Your task to perform on an android device: Search for "razer blade" on target, select the first entry, and add it to the cart. Image 0: 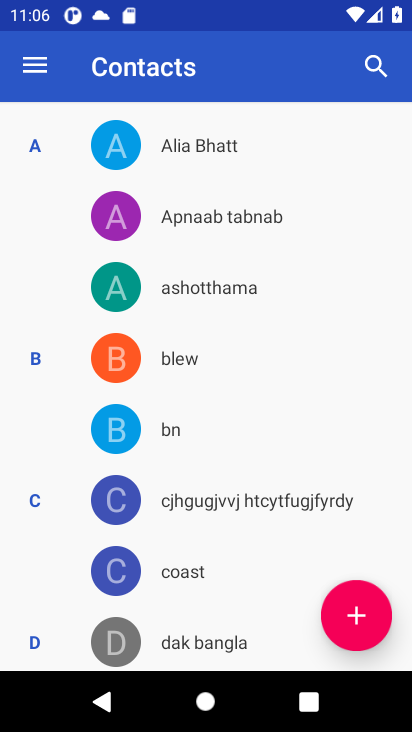
Step 0: press home button
Your task to perform on an android device: Search for "razer blade" on target, select the first entry, and add it to the cart. Image 1: 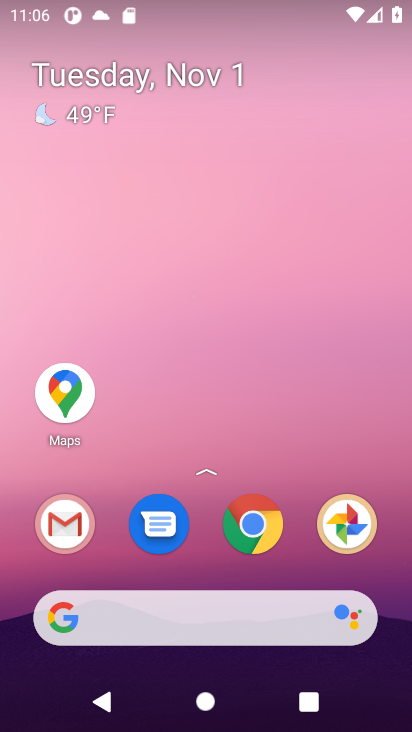
Step 1: click (124, 625)
Your task to perform on an android device: Search for "razer blade" on target, select the first entry, and add it to the cart. Image 2: 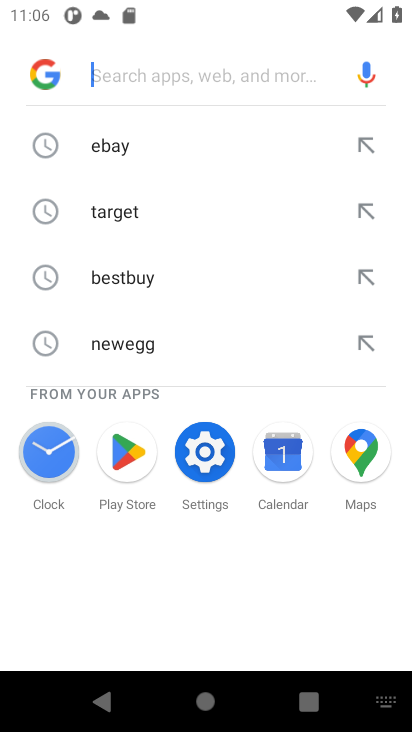
Step 2: type "target"
Your task to perform on an android device: Search for "razer blade" on target, select the first entry, and add it to the cart. Image 3: 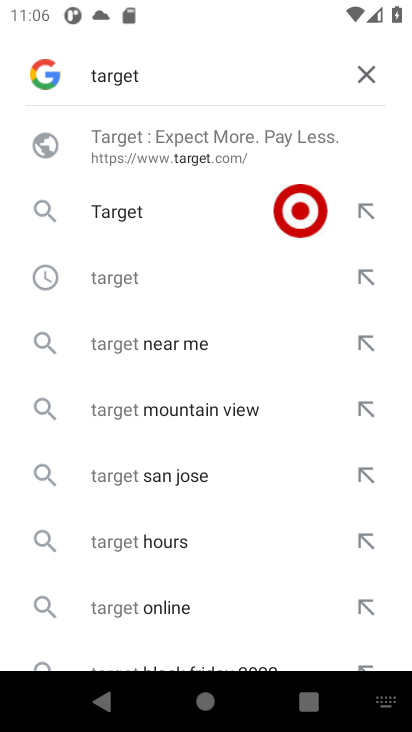
Step 3: press enter
Your task to perform on an android device: Search for "razer blade" on target, select the first entry, and add it to the cart. Image 4: 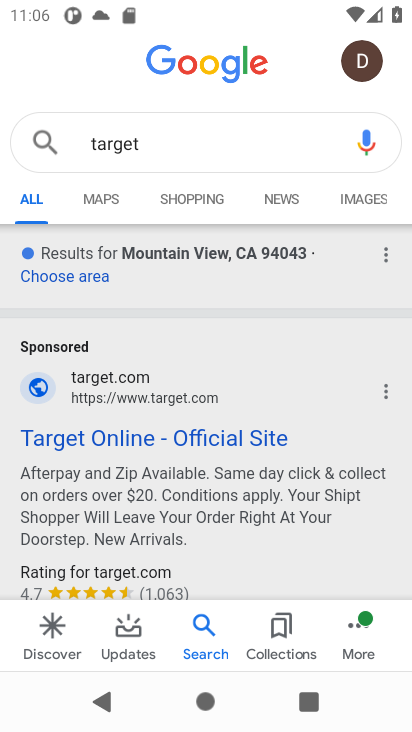
Step 4: drag from (227, 489) to (233, 299)
Your task to perform on an android device: Search for "razer blade" on target, select the first entry, and add it to the cart. Image 5: 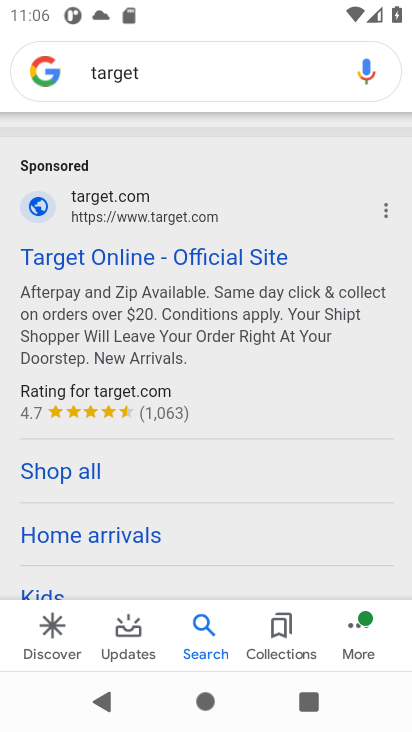
Step 5: click (199, 263)
Your task to perform on an android device: Search for "razer blade" on target, select the first entry, and add it to the cart. Image 6: 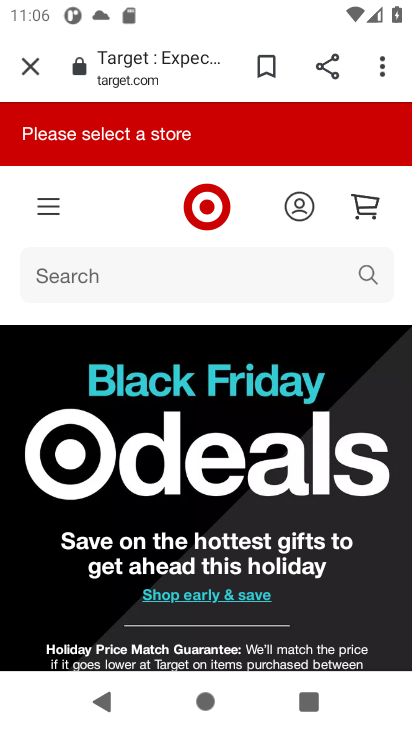
Step 6: click (72, 277)
Your task to perform on an android device: Search for "razer blade" on target, select the first entry, and add it to the cart. Image 7: 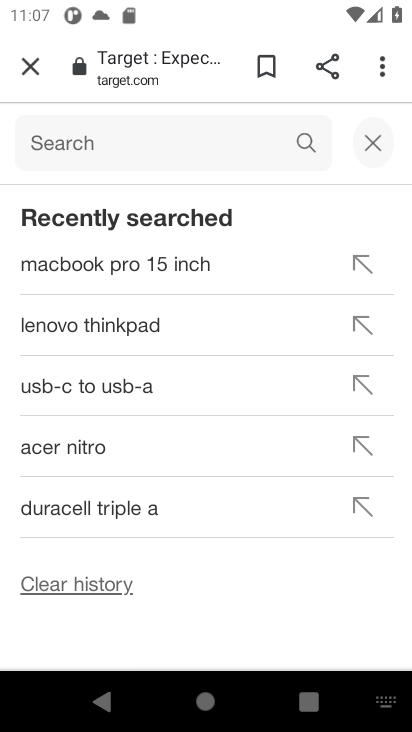
Step 7: type "razer blade"
Your task to perform on an android device: Search for "razer blade" on target, select the first entry, and add it to the cart. Image 8: 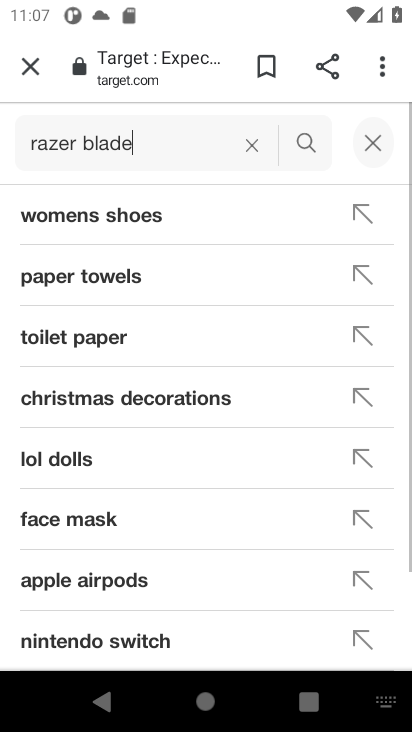
Step 8: press enter
Your task to perform on an android device: Search for "razer blade" on target, select the first entry, and add it to the cart. Image 9: 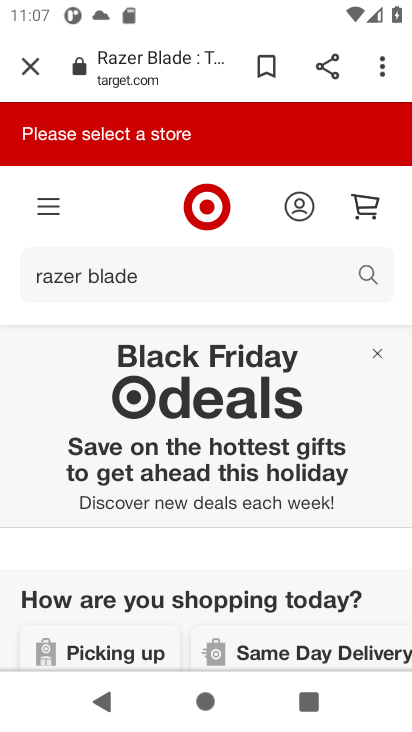
Step 9: drag from (215, 521) to (207, 260)
Your task to perform on an android device: Search for "razer blade" on target, select the first entry, and add it to the cart. Image 10: 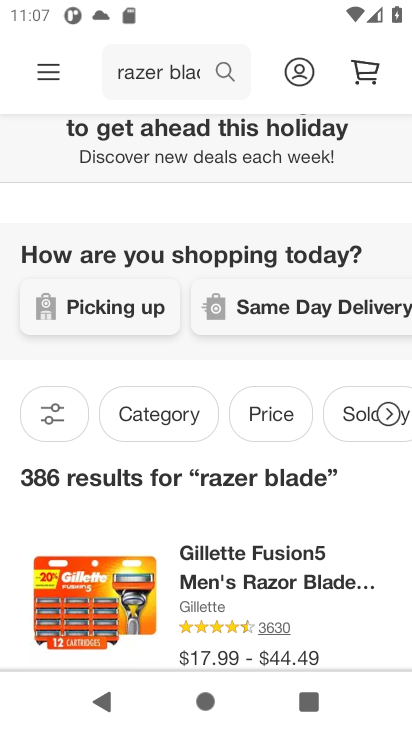
Step 10: drag from (254, 588) to (257, 361)
Your task to perform on an android device: Search for "razer blade" on target, select the first entry, and add it to the cart. Image 11: 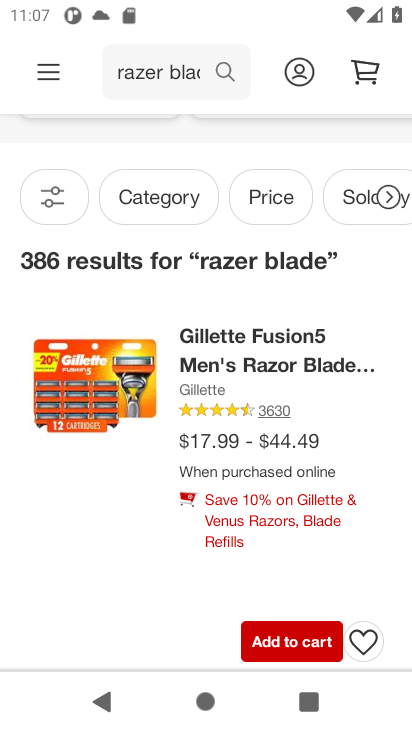
Step 11: drag from (213, 545) to (239, 350)
Your task to perform on an android device: Search for "razer blade" on target, select the first entry, and add it to the cart. Image 12: 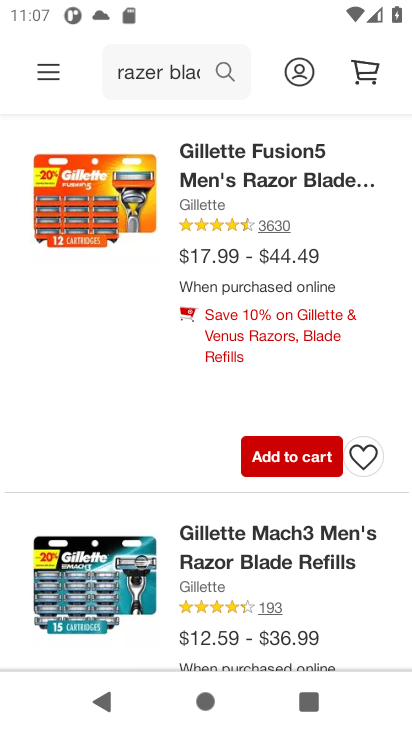
Step 12: click (286, 460)
Your task to perform on an android device: Search for "razer blade" on target, select the first entry, and add it to the cart. Image 13: 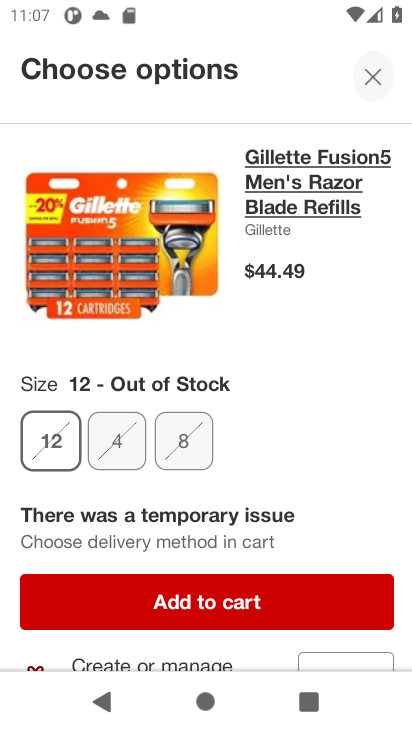
Step 13: click (187, 606)
Your task to perform on an android device: Search for "razer blade" on target, select the first entry, and add it to the cart. Image 14: 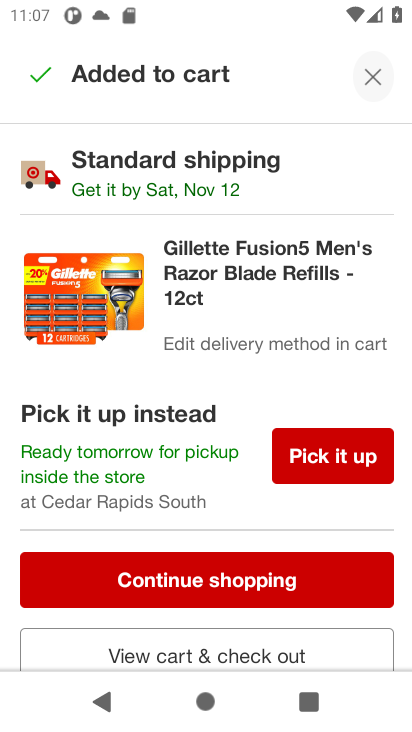
Step 14: task complete